Your task to perform on an android device: Open internet settings Image 0: 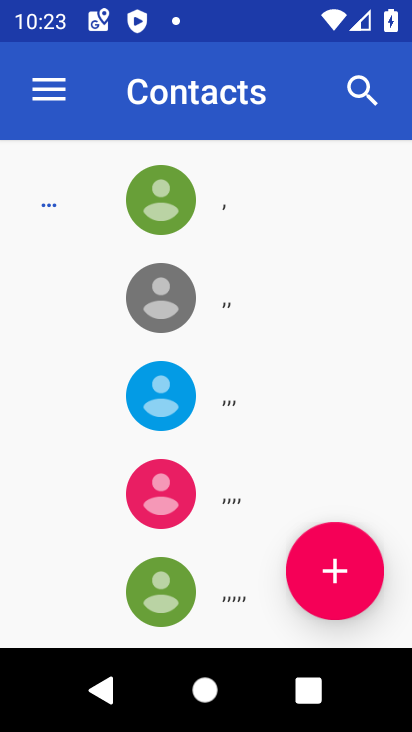
Step 0: press home button
Your task to perform on an android device: Open internet settings Image 1: 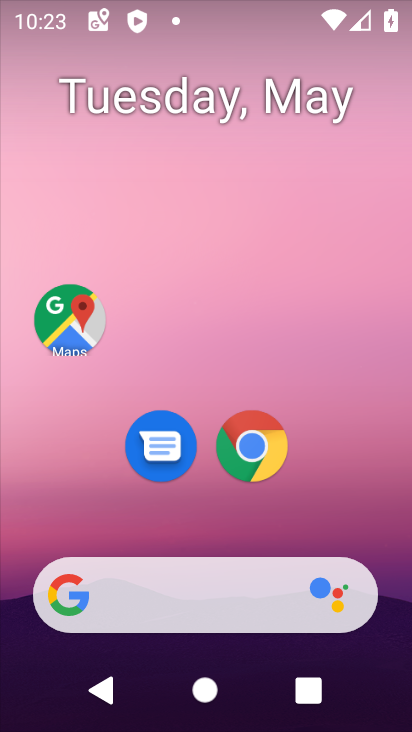
Step 1: drag from (222, 502) to (239, 4)
Your task to perform on an android device: Open internet settings Image 2: 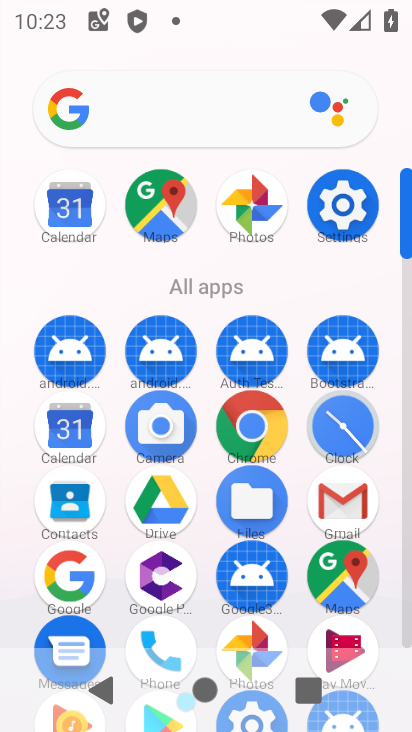
Step 2: click (351, 209)
Your task to perform on an android device: Open internet settings Image 3: 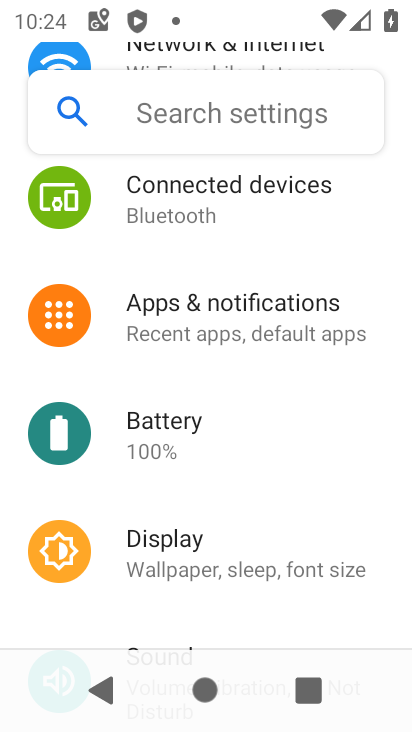
Step 3: drag from (274, 247) to (254, 489)
Your task to perform on an android device: Open internet settings Image 4: 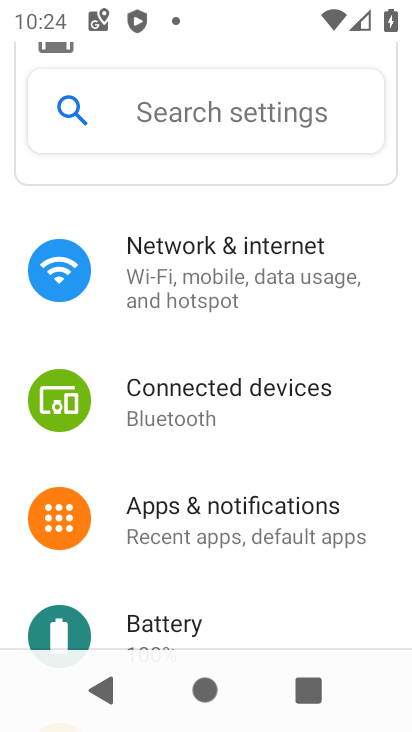
Step 4: click (245, 290)
Your task to perform on an android device: Open internet settings Image 5: 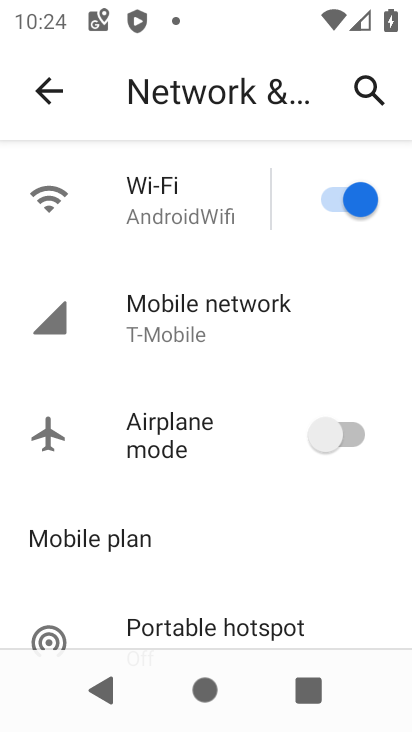
Step 5: task complete